Your task to perform on an android device: When is my next meeting? Image 0: 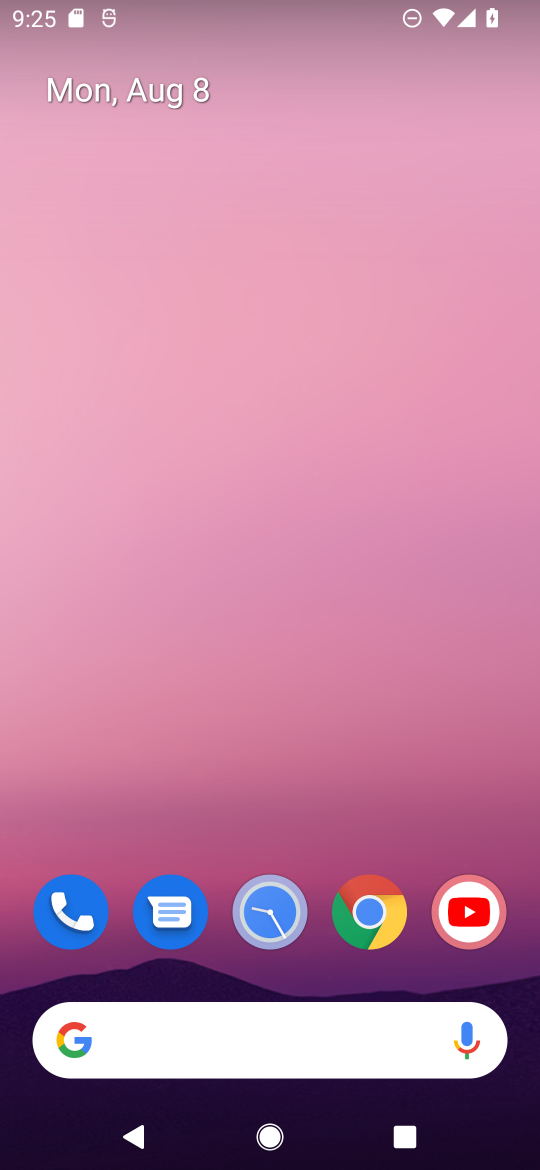
Step 0: drag from (456, 957) to (292, 126)
Your task to perform on an android device: When is my next meeting? Image 1: 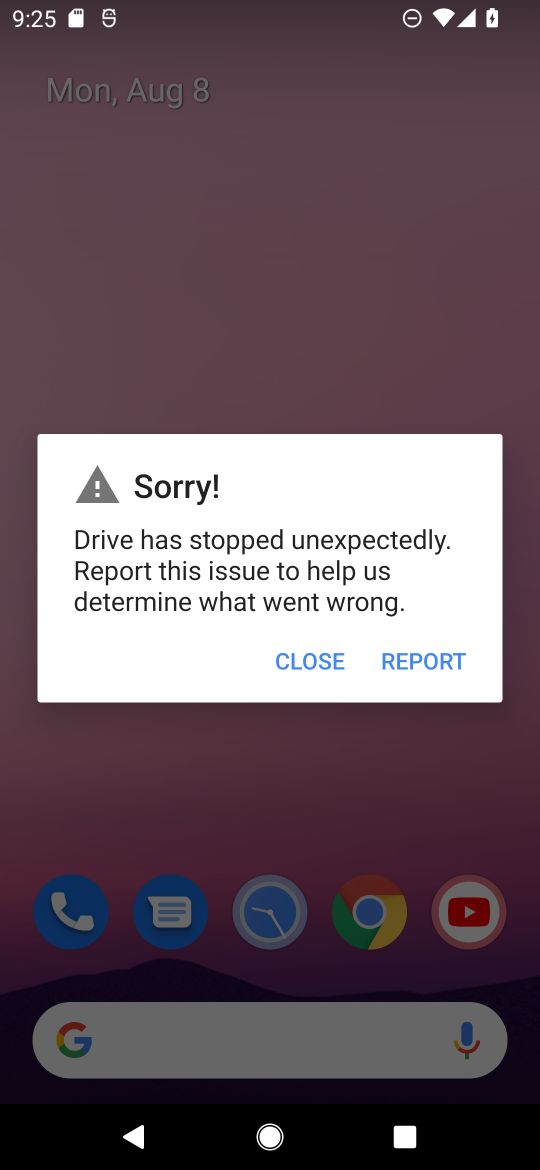
Step 1: click (309, 676)
Your task to perform on an android device: When is my next meeting? Image 2: 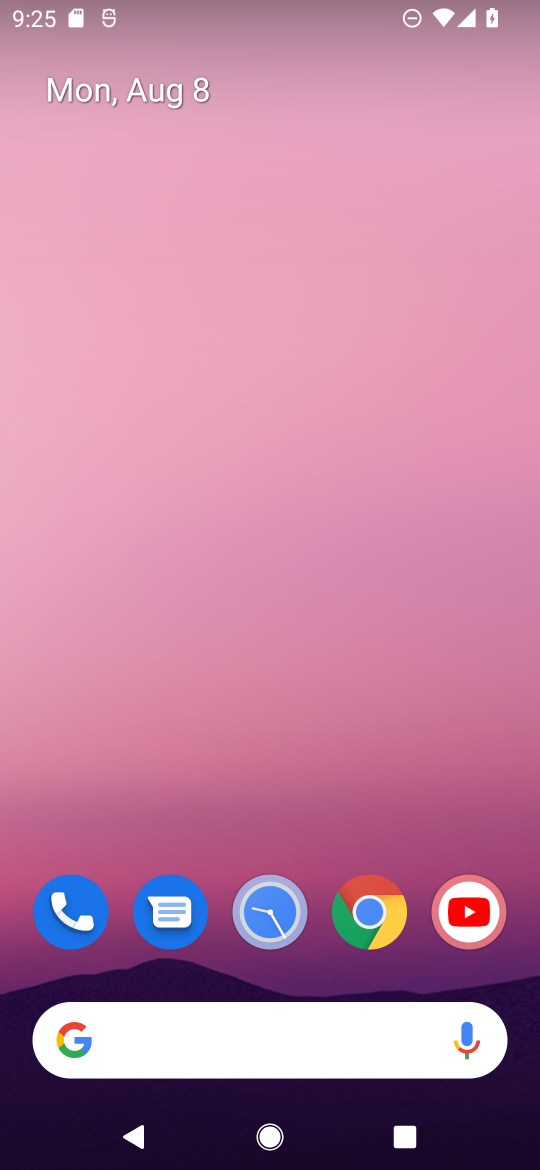
Step 2: drag from (477, 1017) to (309, 180)
Your task to perform on an android device: When is my next meeting? Image 3: 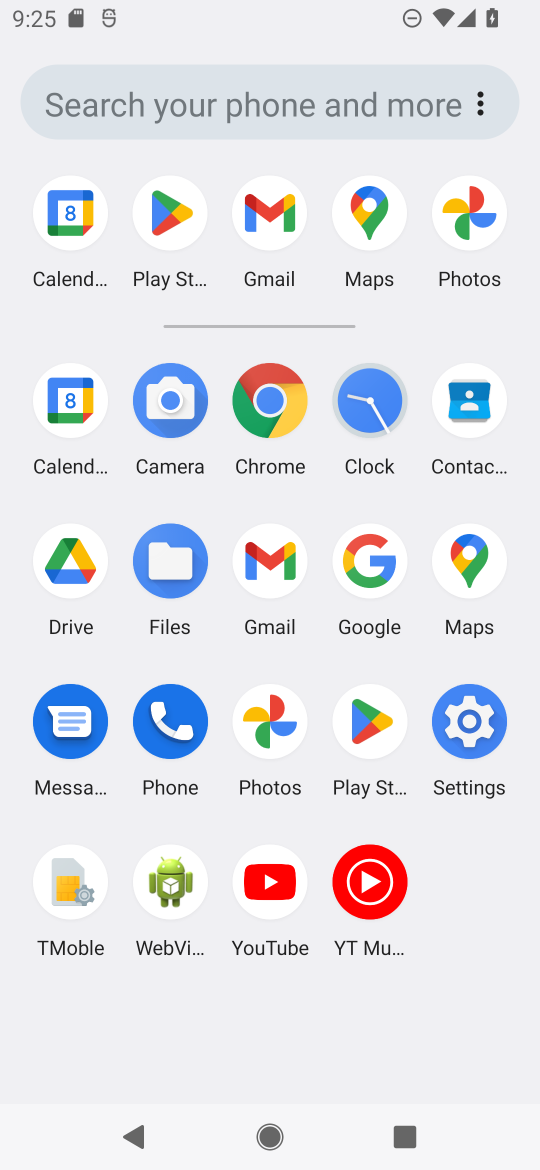
Step 3: click (50, 426)
Your task to perform on an android device: When is my next meeting? Image 4: 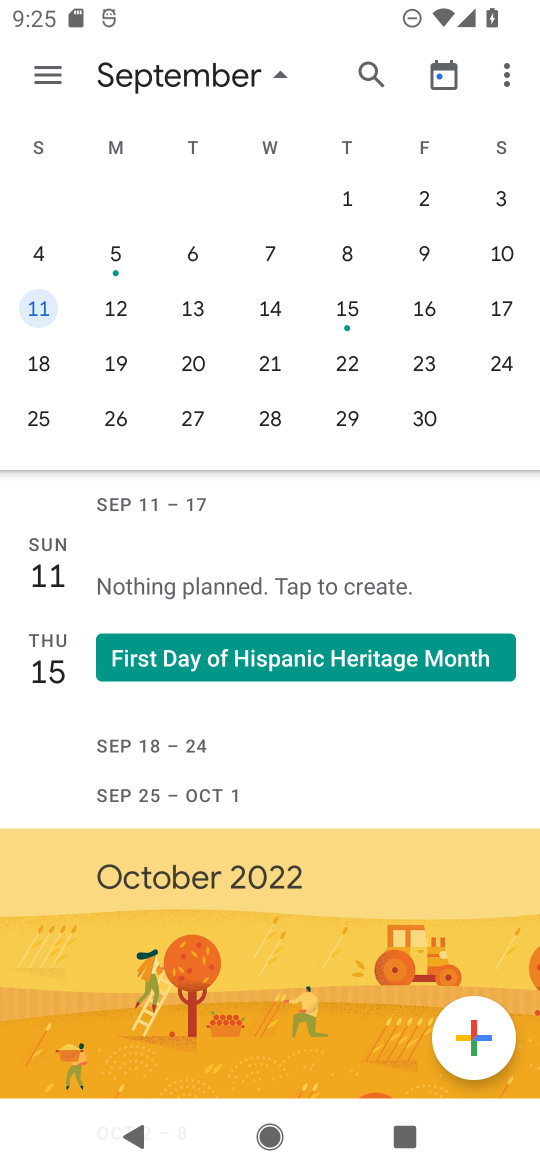
Step 4: task complete